Your task to perform on an android device: star an email in the gmail app Image 0: 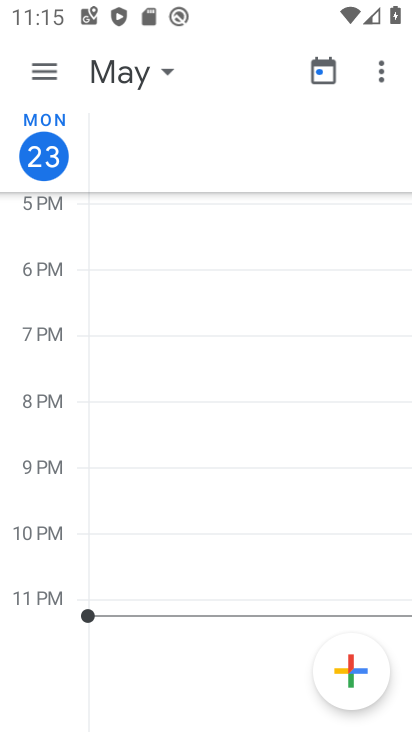
Step 0: press back button
Your task to perform on an android device: star an email in the gmail app Image 1: 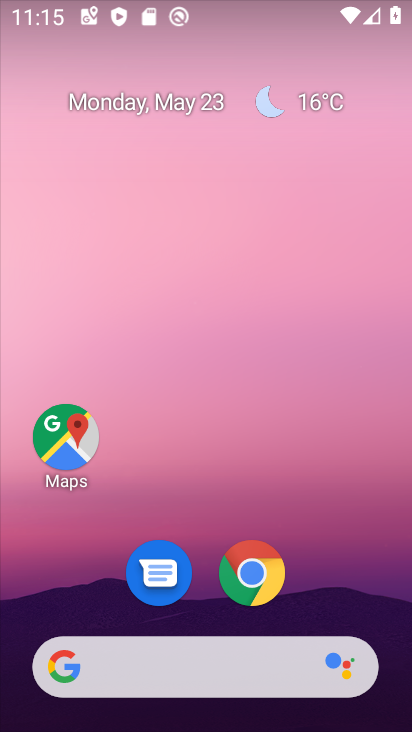
Step 1: drag from (326, 565) to (258, 14)
Your task to perform on an android device: star an email in the gmail app Image 2: 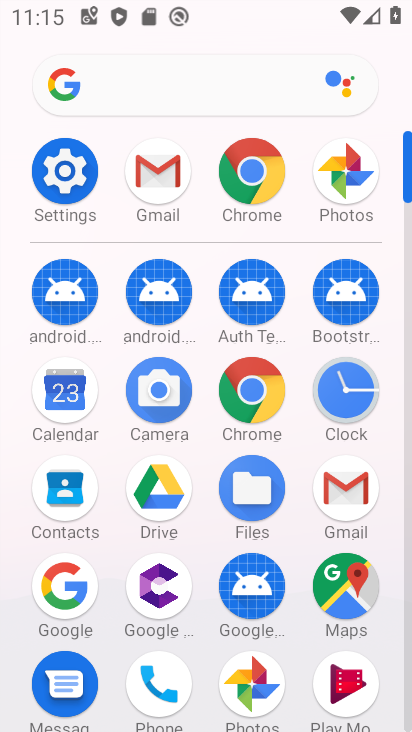
Step 2: drag from (14, 504) to (5, 237)
Your task to perform on an android device: star an email in the gmail app Image 3: 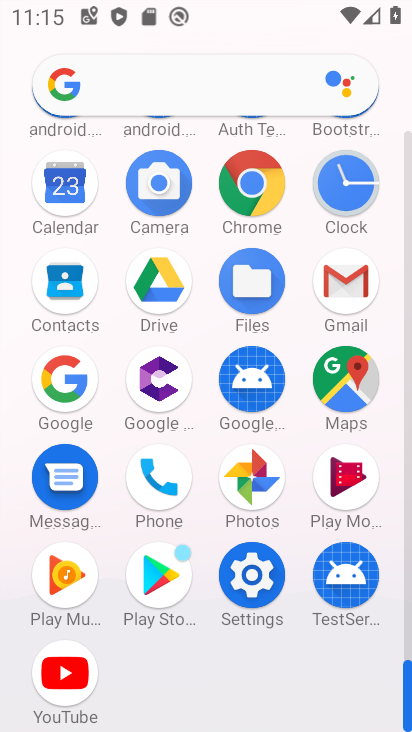
Step 3: click (350, 264)
Your task to perform on an android device: star an email in the gmail app Image 4: 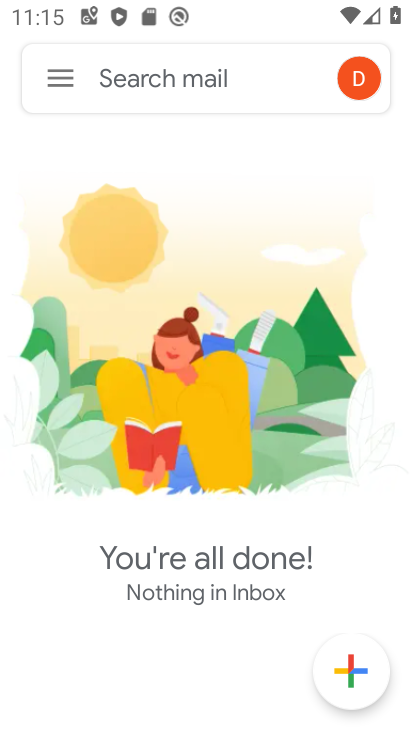
Step 4: click (64, 83)
Your task to perform on an android device: star an email in the gmail app Image 5: 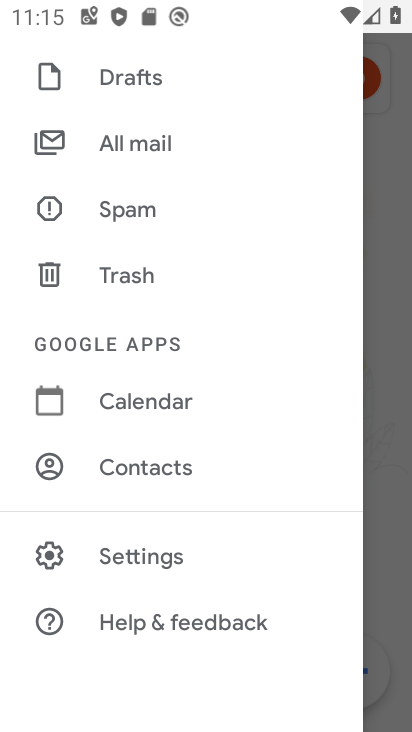
Step 5: drag from (203, 101) to (229, 467)
Your task to perform on an android device: star an email in the gmail app Image 6: 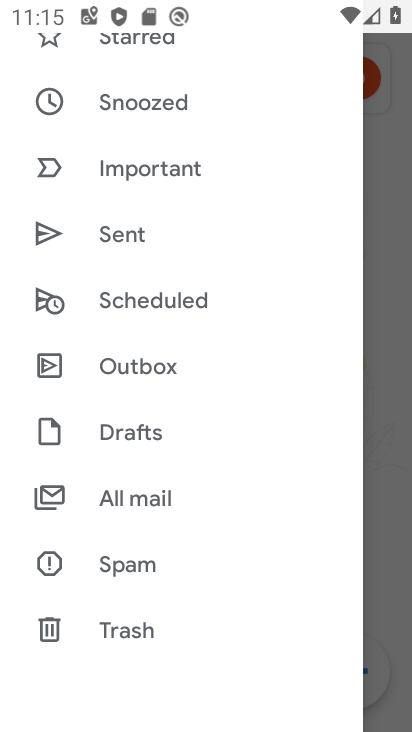
Step 6: click (156, 496)
Your task to perform on an android device: star an email in the gmail app Image 7: 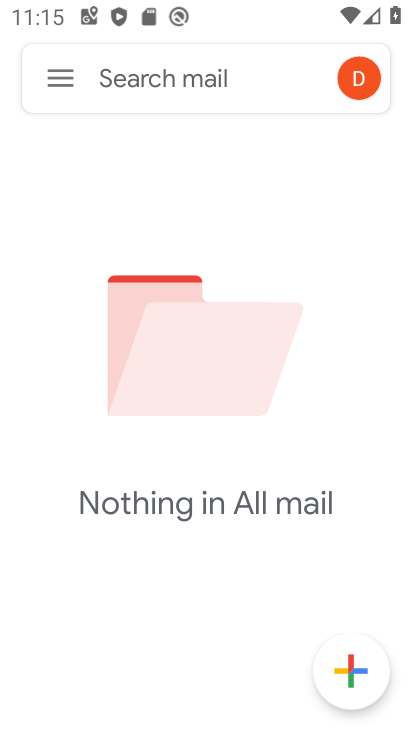
Step 7: task complete